Your task to perform on an android device: Show me productivity apps on the Play Store Image 0: 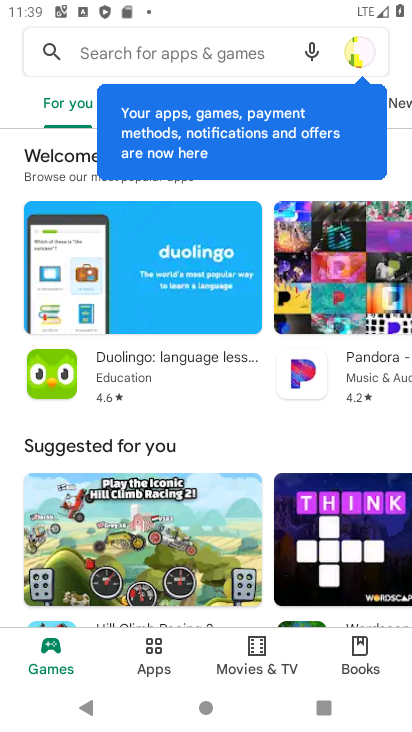
Step 0: press home button
Your task to perform on an android device: Show me productivity apps on the Play Store Image 1: 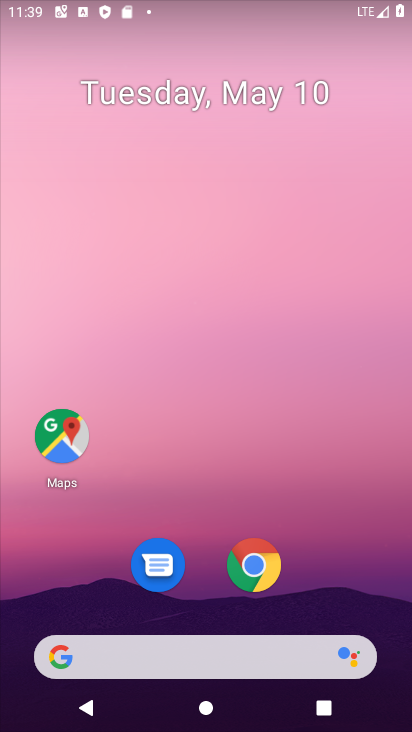
Step 1: drag from (6, 653) to (116, 92)
Your task to perform on an android device: Show me productivity apps on the Play Store Image 2: 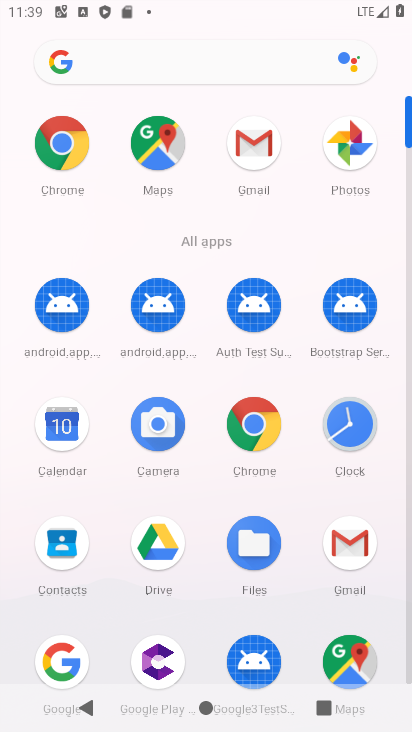
Step 2: drag from (240, 614) to (312, 120)
Your task to perform on an android device: Show me productivity apps on the Play Store Image 3: 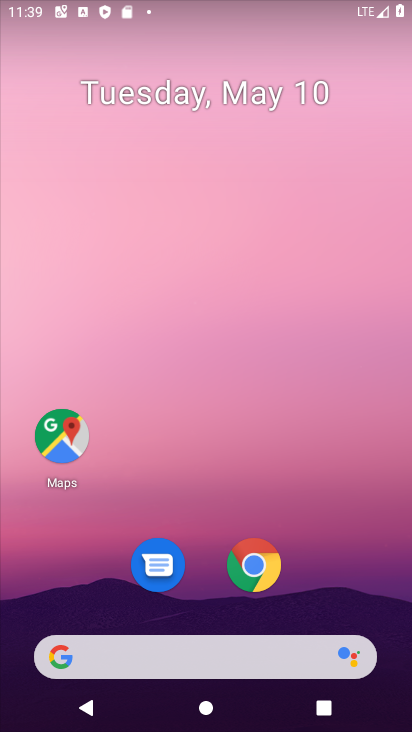
Step 3: drag from (1, 572) to (189, 79)
Your task to perform on an android device: Show me productivity apps on the Play Store Image 4: 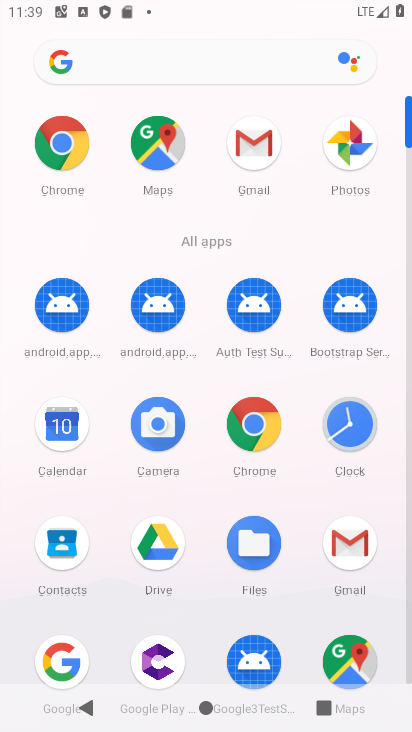
Step 4: drag from (46, 728) to (202, 49)
Your task to perform on an android device: Show me productivity apps on the Play Store Image 5: 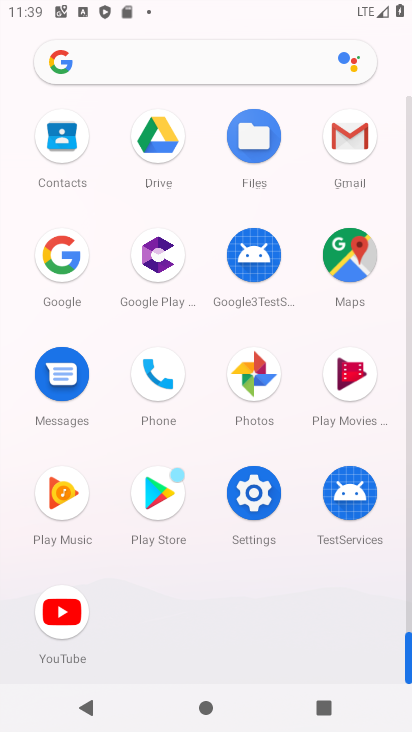
Step 5: click (158, 491)
Your task to perform on an android device: Show me productivity apps on the Play Store Image 6: 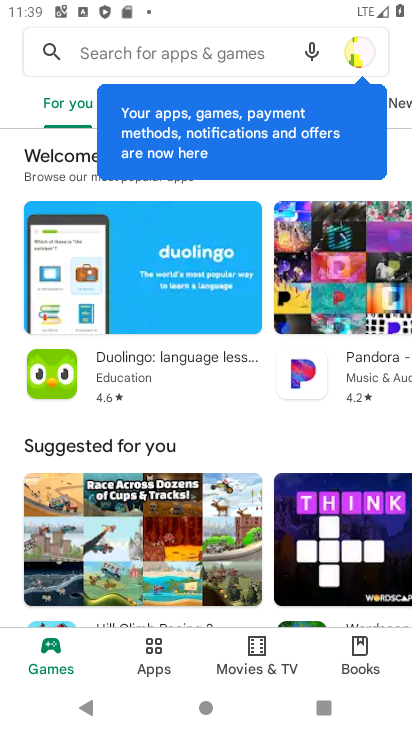
Step 6: task complete